Your task to perform on an android device: Search for sushi restaurants on Maps Image 0: 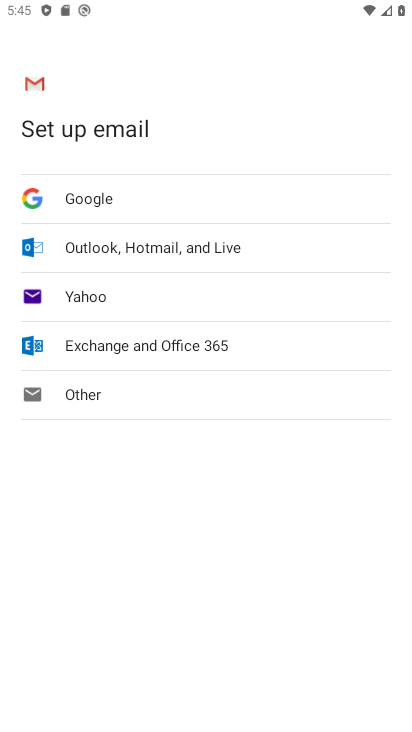
Step 0: press home button
Your task to perform on an android device: Search for sushi restaurants on Maps Image 1: 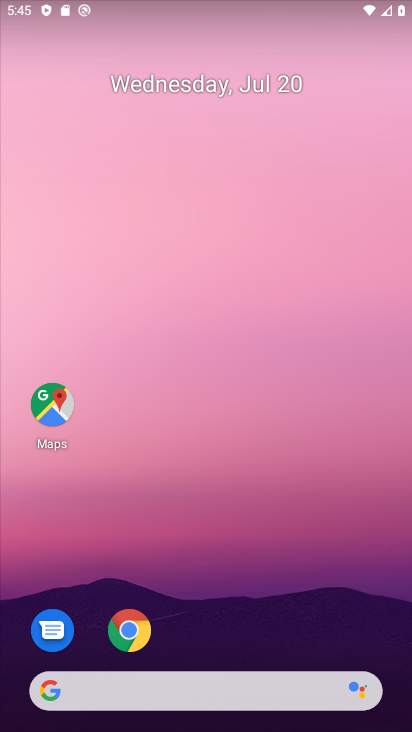
Step 1: drag from (225, 684) to (363, 109)
Your task to perform on an android device: Search for sushi restaurants on Maps Image 2: 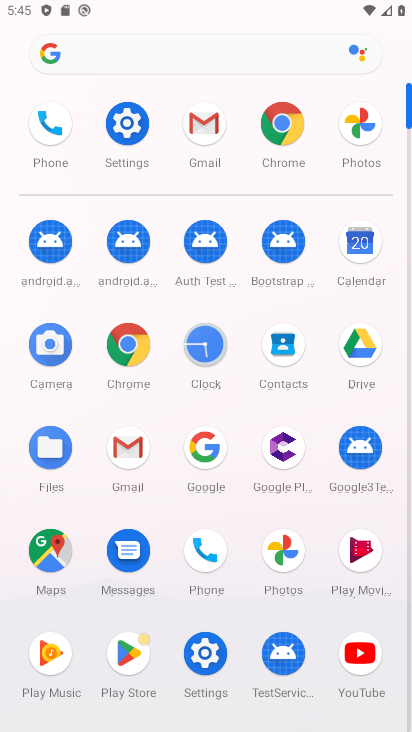
Step 2: click (64, 548)
Your task to perform on an android device: Search for sushi restaurants on Maps Image 3: 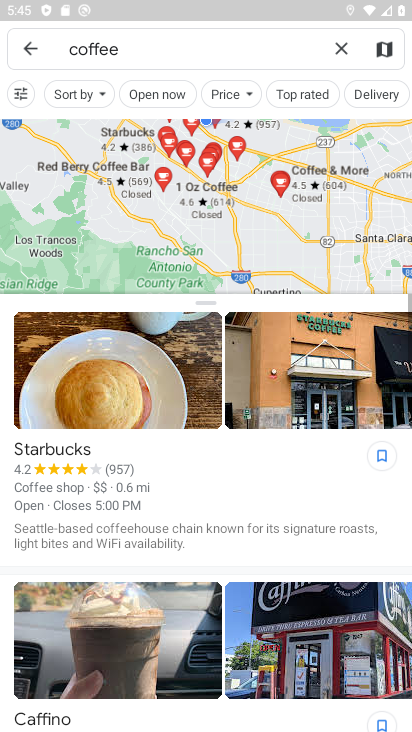
Step 3: click (343, 49)
Your task to perform on an android device: Search for sushi restaurants on Maps Image 4: 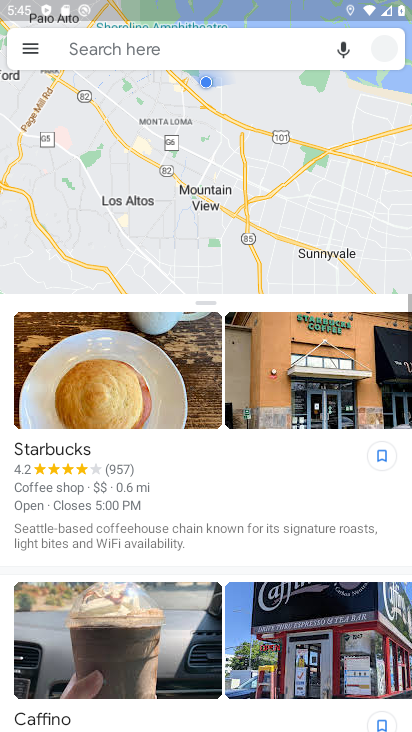
Step 4: click (169, 44)
Your task to perform on an android device: Search for sushi restaurants on Maps Image 5: 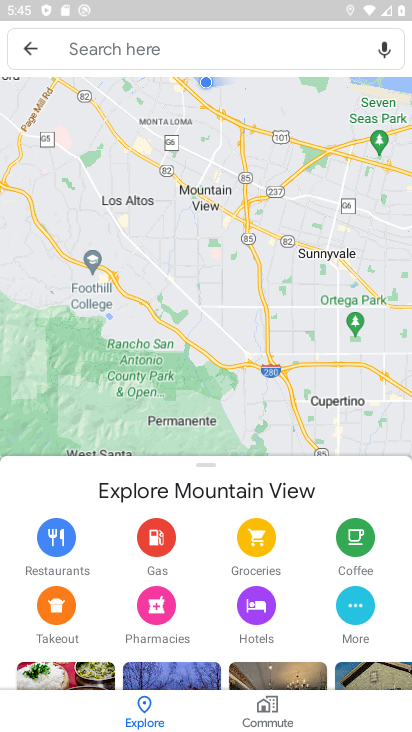
Step 5: click (169, 44)
Your task to perform on an android device: Search for sushi restaurants on Maps Image 6: 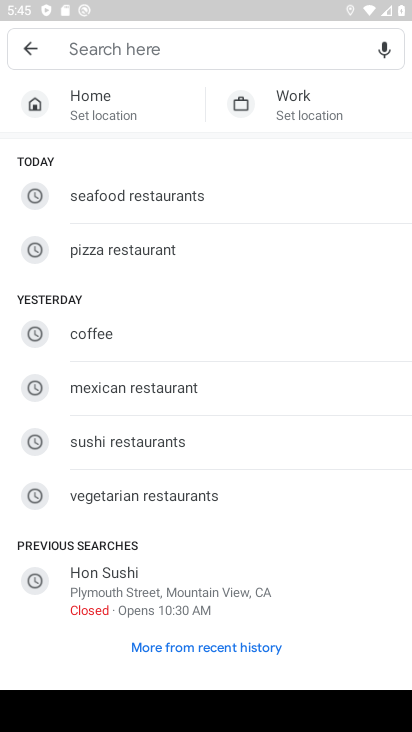
Step 6: click (112, 443)
Your task to perform on an android device: Search for sushi restaurants on Maps Image 7: 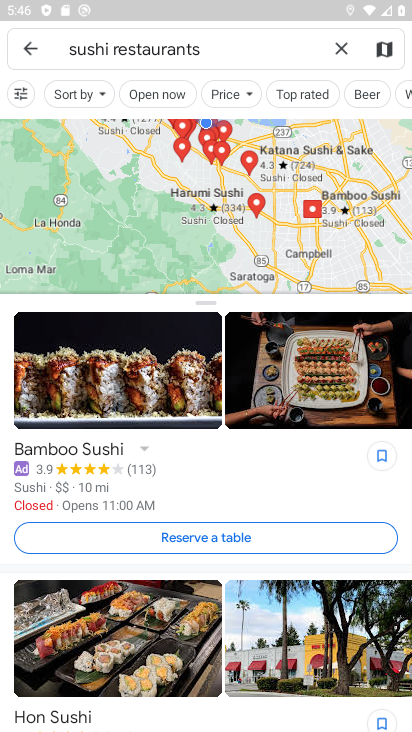
Step 7: task complete